Your task to perform on an android device: Go to ESPN.com Image 0: 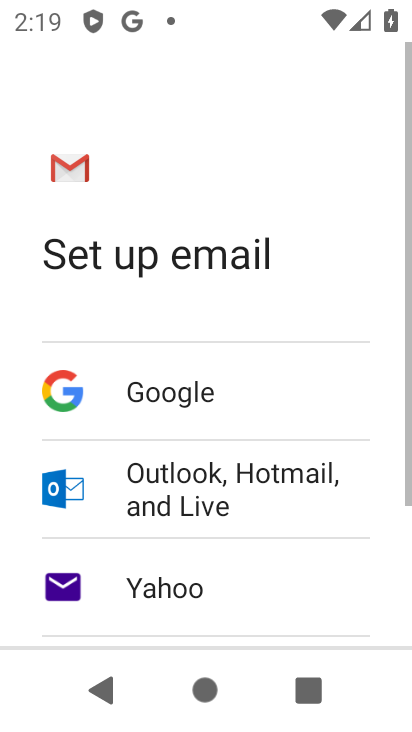
Step 0: press home button
Your task to perform on an android device: Go to ESPN.com Image 1: 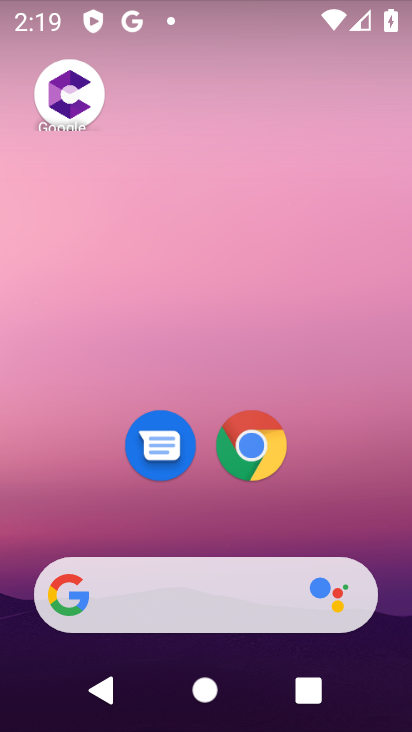
Step 1: click (247, 439)
Your task to perform on an android device: Go to ESPN.com Image 2: 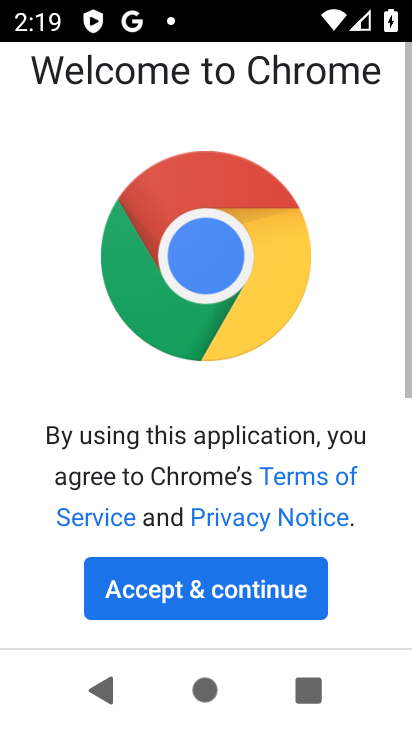
Step 2: click (247, 578)
Your task to perform on an android device: Go to ESPN.com Image 3: 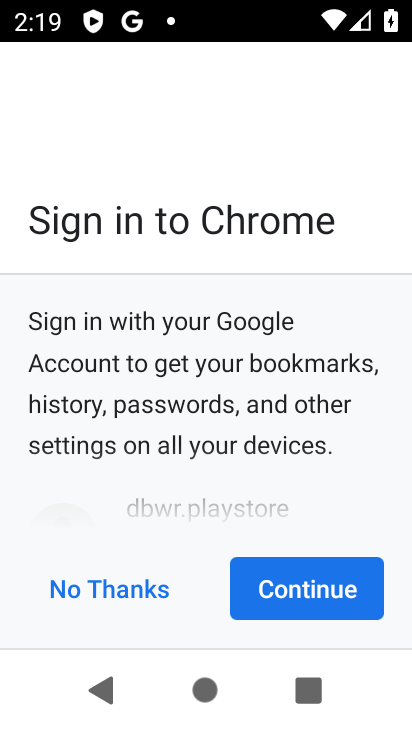
Step 3: click (277, 594)
Your task to perform on an android device: Go to ESPN.com Image 4: 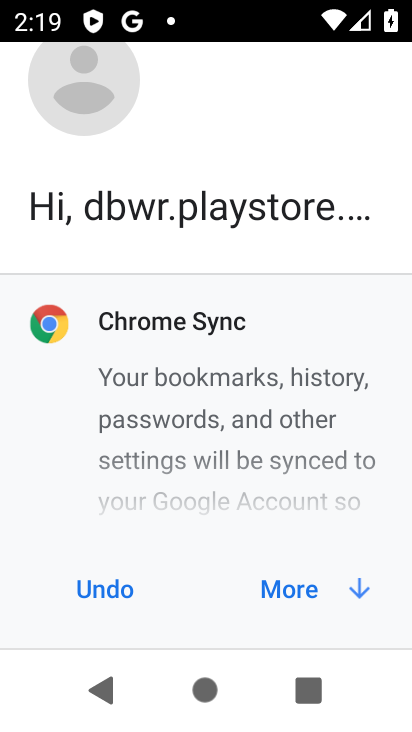
Step 4: click (277, 594)
Your task to perform on an android device: Go to ESPN.com Image 5: 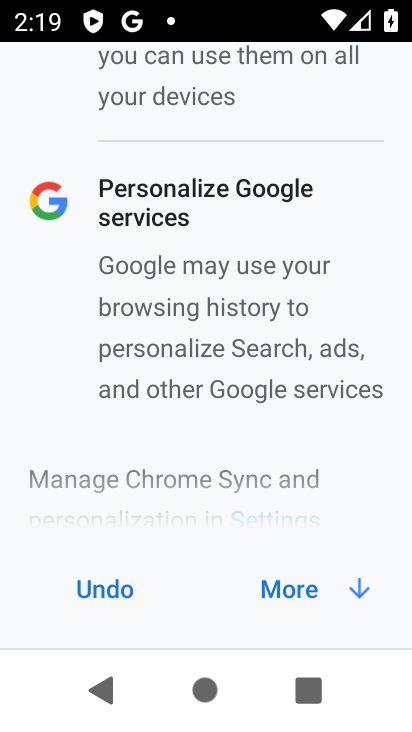
Step 5: click (279, 592)
Your task to perform on an android device: Go to ESPN.com Image 6: 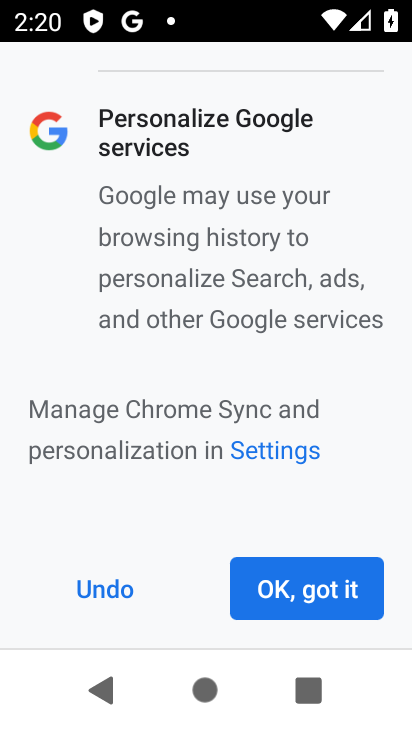
Step 6: click (279, 592)
Your task to perform on an android device: Go to ESPN.com Image 7: 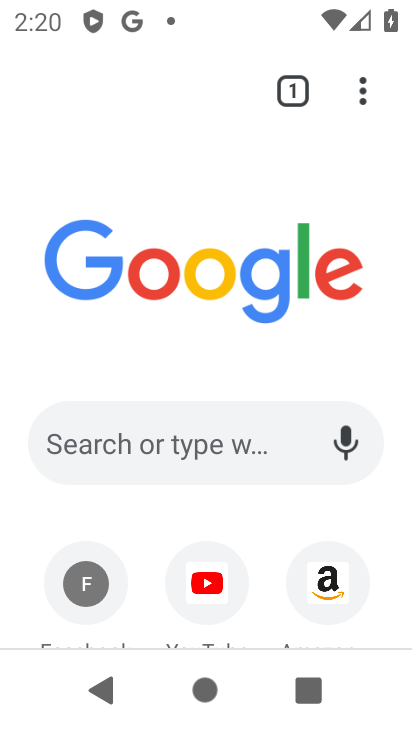
Step 7: drag from (277, 536) to (293, 194)
Your task to perform on an android device: Go to ESPN.com Image 8: 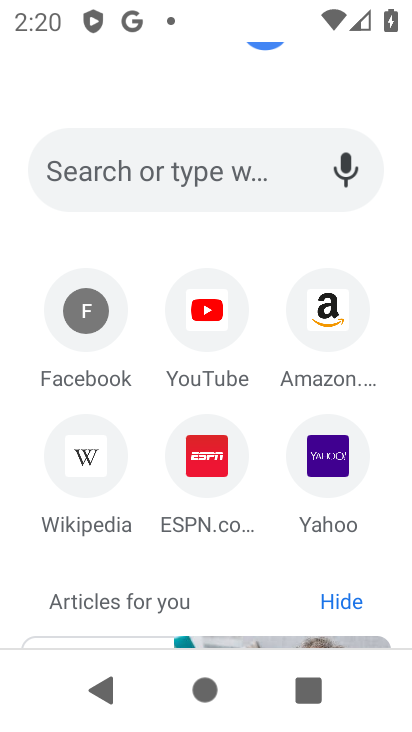
Step 8: click (216, 447)
Your task to perform on an android device: Go to ESPN.com Image 9: 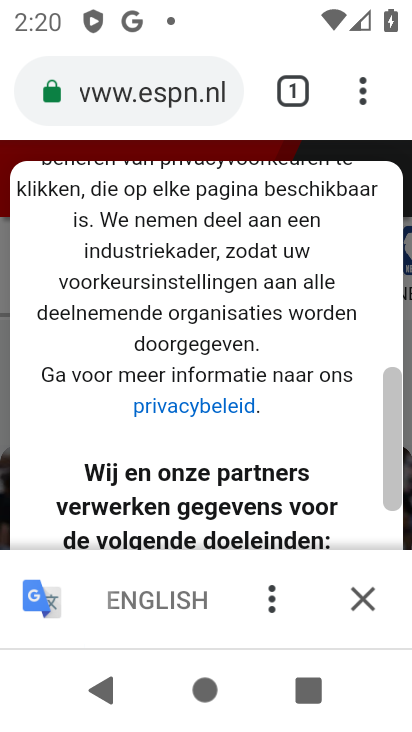
Step 9: task complete